Your task to perform on an android device: turn on location history Image 0: 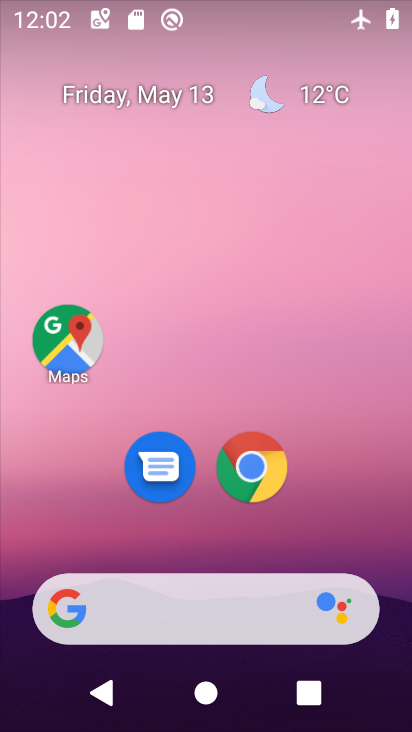
Step 0: drag from (320, 504) to (197, 47)
Your task to perform on an android device: turn on location history Image 1: 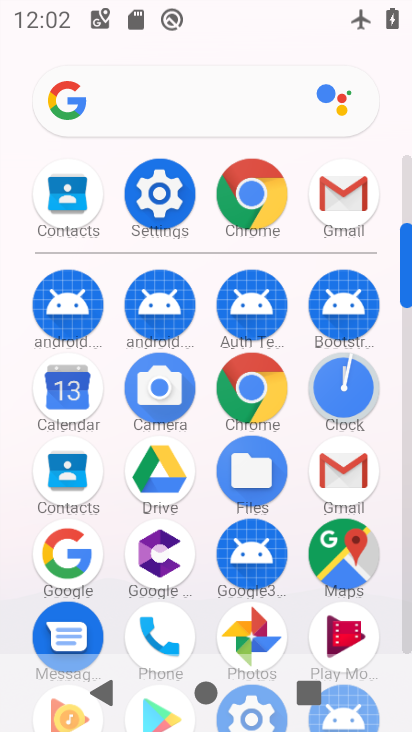
Step 1: click (147, 196)
Your task to perform on an android device: turn on location history Image 2: 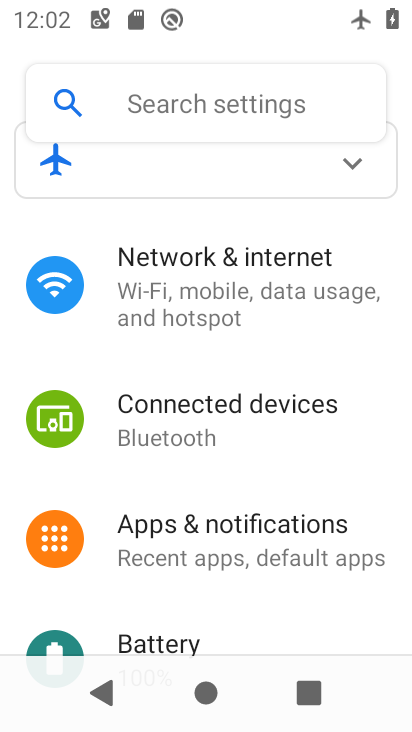
Step 2: drag from (262, 601) to (187, 148)
Your task to perform on an android device: turn on location history Image 3: 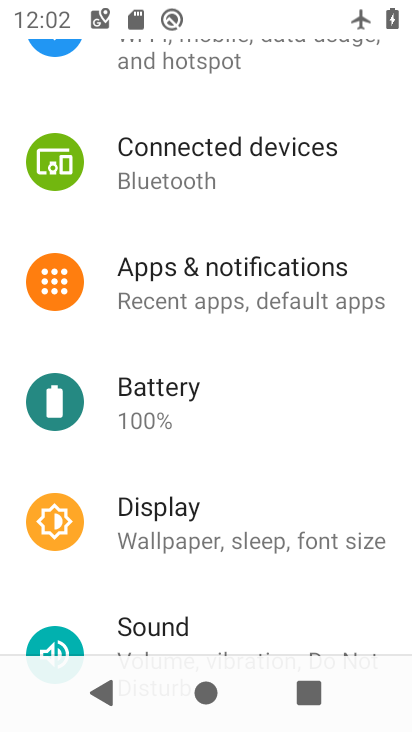
Step 3: drag from (221, 557) to (199, 149)
Your task to perform on an android device: turn on location history Image 4: 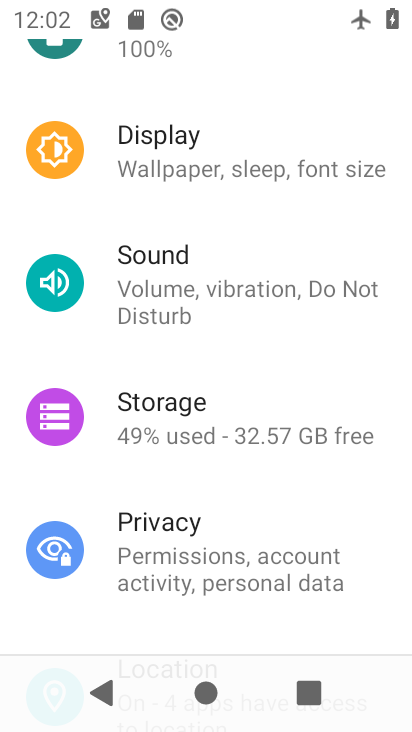
Step 4: drag from (234, 549) to (221, 199)
Your task to perform on an android device: turn on location history Image 5: 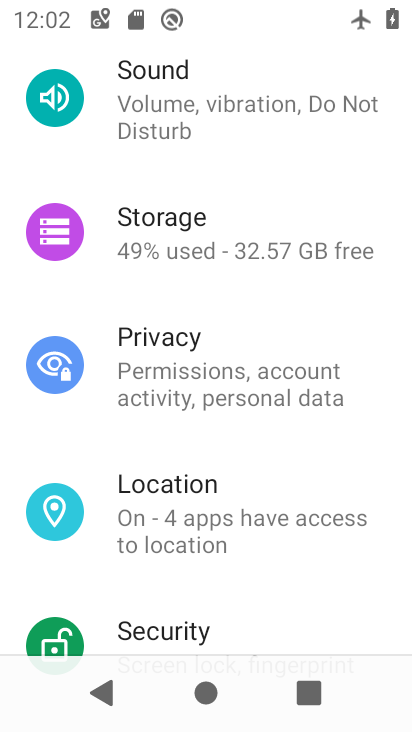
Step 5: click (217, 524)
Your task to perform on an android device: turn on location history Image 6: 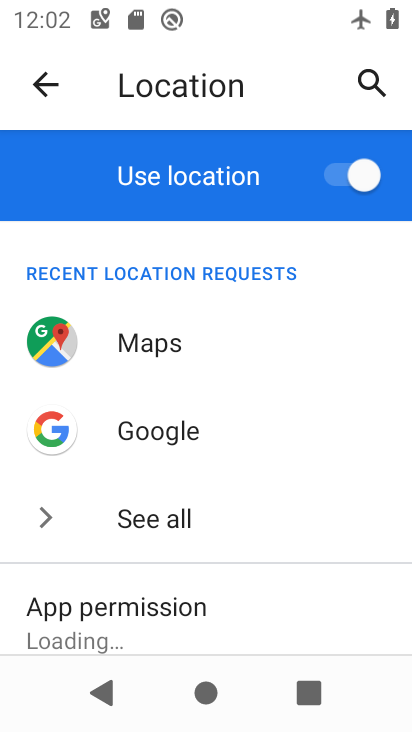
Step 6: task complete